Your task to perform on an android device: Open CNN.com Image 0: 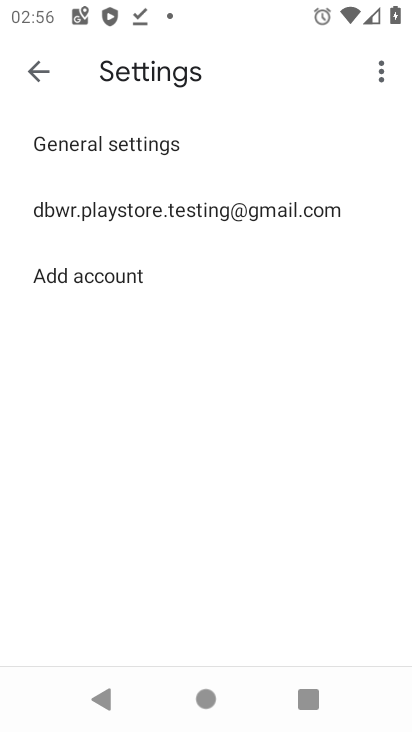
Step 0: press home button
Your task to perform on an android device: Open CNN.com Image 1: 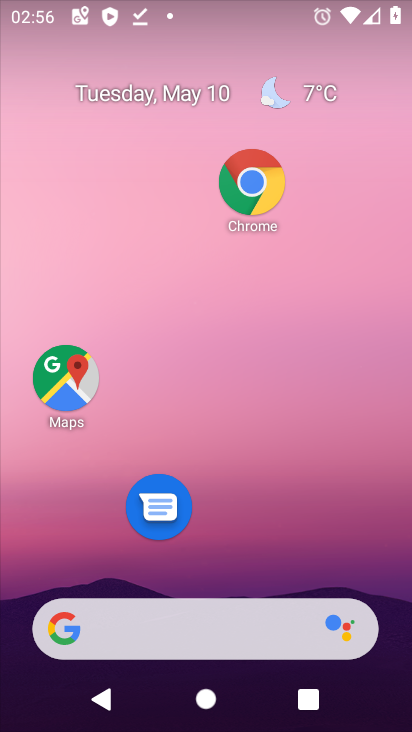
Step 1: click (235, 201)
Your task to perform on an android device: Open CNN.com Image 2: 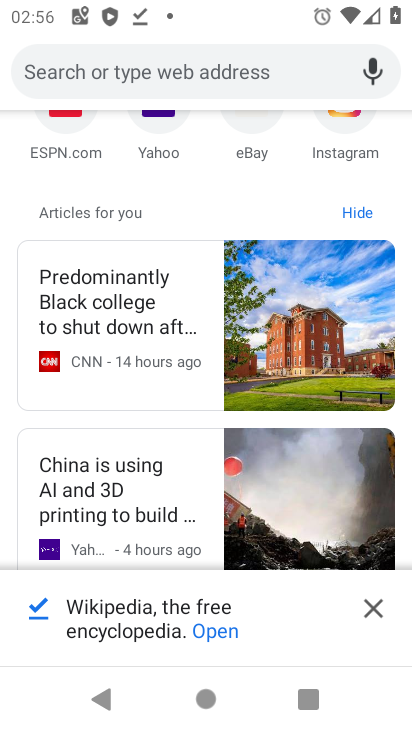
Step 2: click (201, 76)
Your task to perform on an android device: Open CNN.com Image 3: 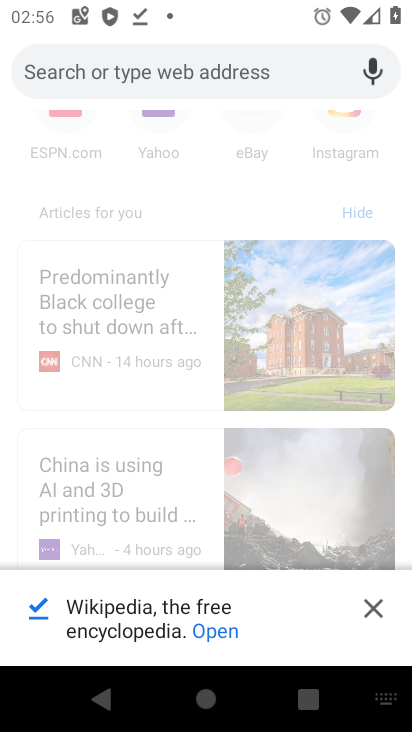
Step 3: type "cnn"
Your task to perform on an android device: Open CNN.com Image 4: 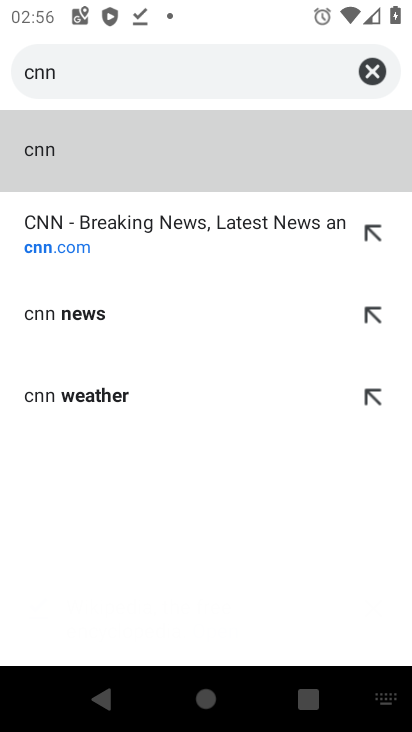
Step 4: click (181, 266)
Your task to perform on an android device: Open CNN.com Image 5: 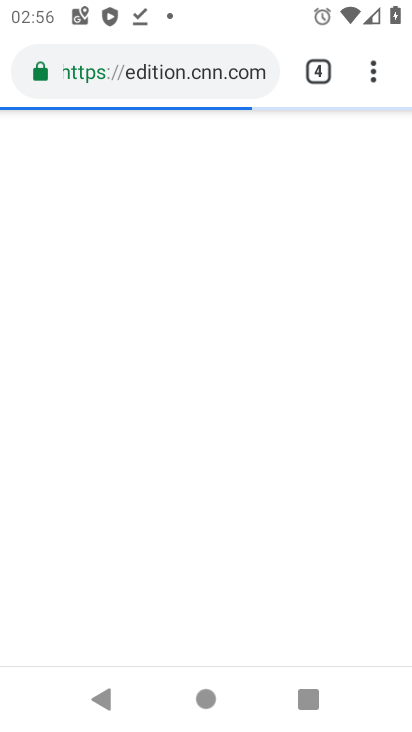
Step 5: task complete